Your task to perform on an android device: uninstall "Google Find My Device" Image 0: 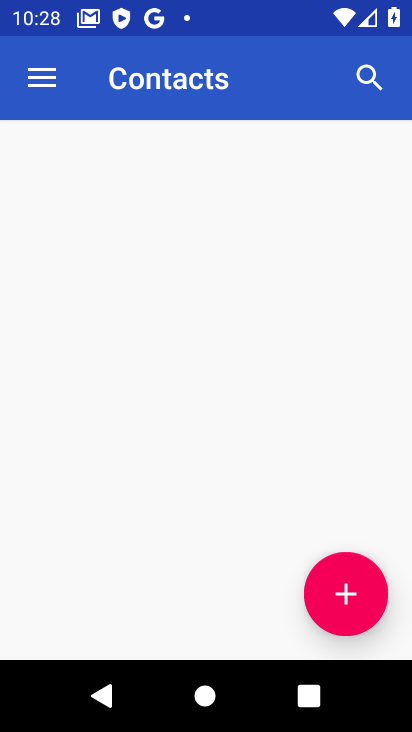
Step 0: drag from (216, 596) to (218, 393)
Your task to perform on an android device: uninstall "Google Find My Device" Image 1: 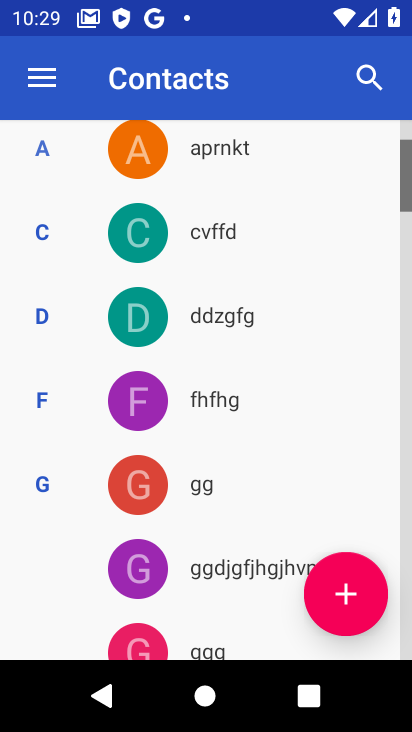
Step 1: press back button
Your task to perform on an android device: uninstall "Google Find My Device" Image 2: 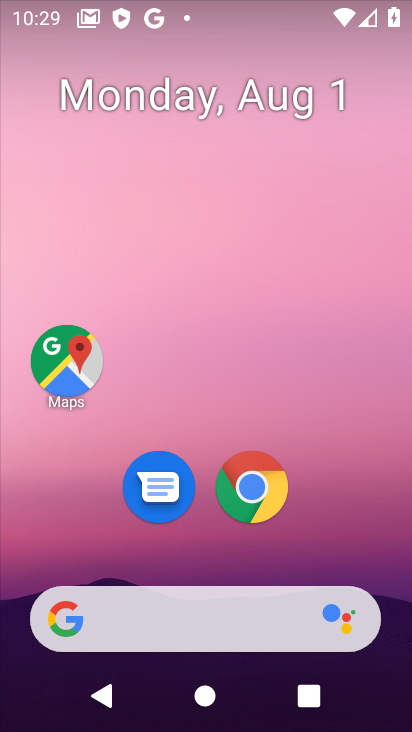
Step 2: drag from (230, 572) to (148, 62)
Your task to perform on an android device: uninstall "Google Find My Device" Image 3: 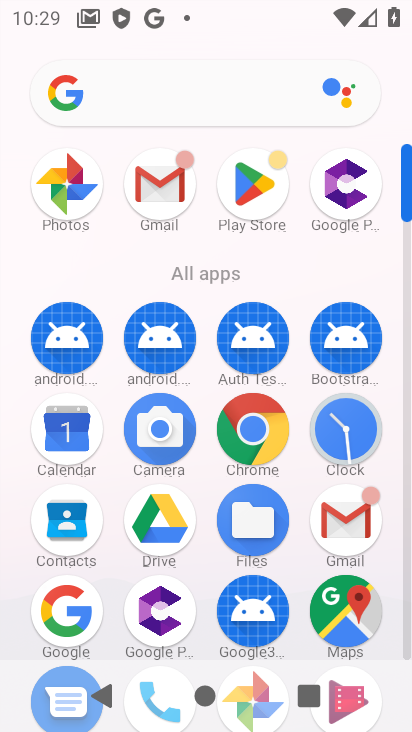
Step 3: drag from (214, 575) to (168, 137)
Your task to perform on an android device: uninstall "Google Find My Device" Image 4: 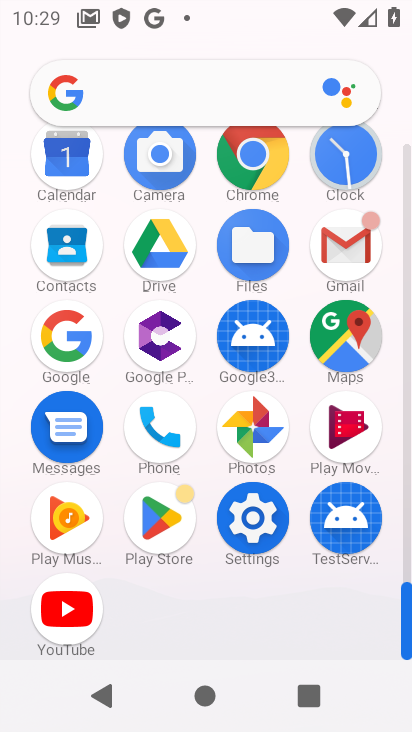
Step 4: click (175, 543)
Your task to perform on an android device: uninstall "Google Find My Device" Image 5: 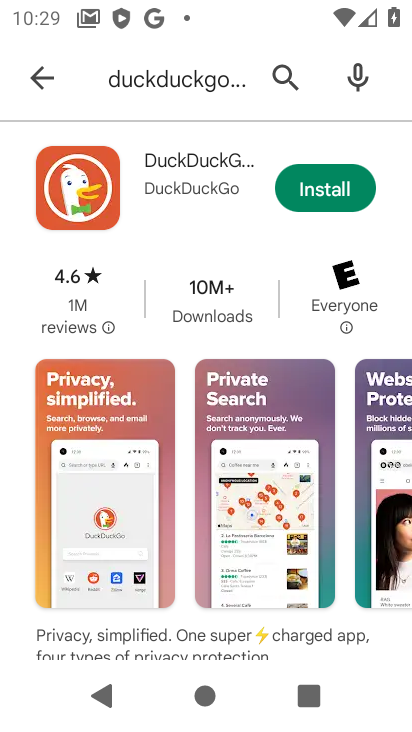
Step 5: click (36, 81)
Your task to perform on an android device: uninstall "Google Find My Device" Image 6: 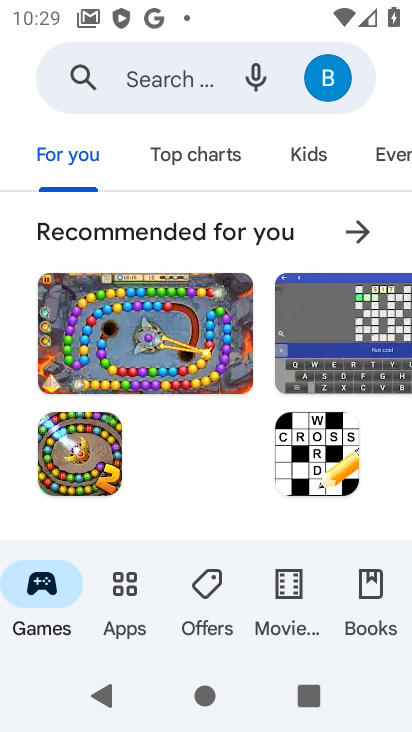
Step 6: click (91, 94)
Your task to perform on an android device: uninstall "Google Find My Device" Image 7: 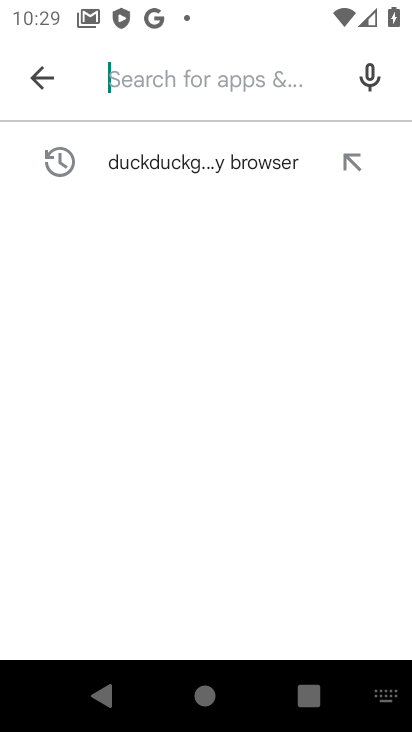
Step 7: type "Google Find My Device"
Your task to perform on an android device: uninstall "Google Find My Device" Image 8: 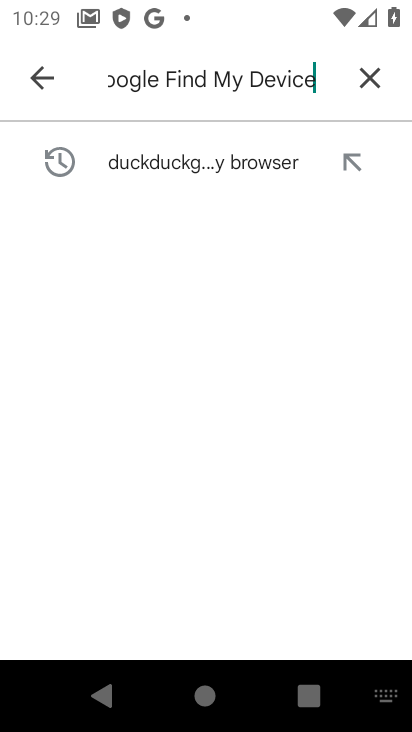
Step 8: type ""
Your task to perform on an android device: uninstall "Google Find My Device" Image 9: 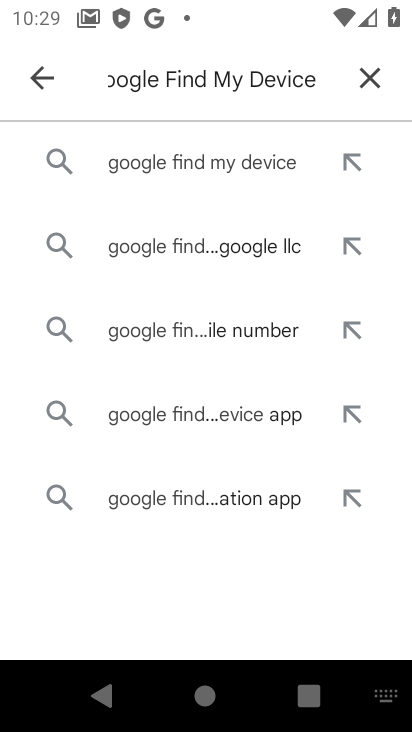
Step 9: click (242, 167)
Your task to perform on an android device: uninstall "Google Find My Device" Image 10: 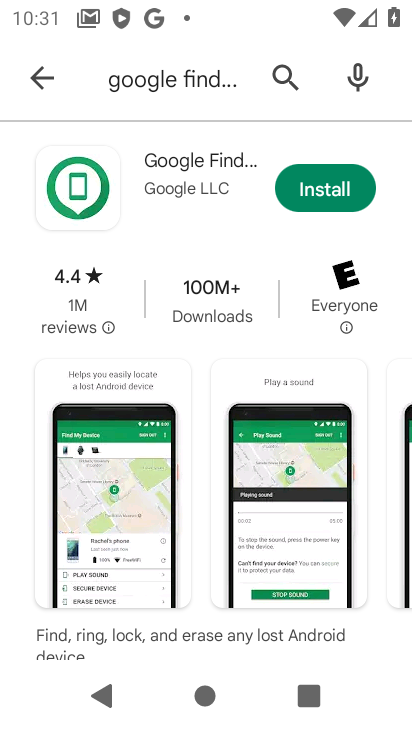
Step 10: task complete